Your task to perform on an android device: change the upload size in google photos Image 0: 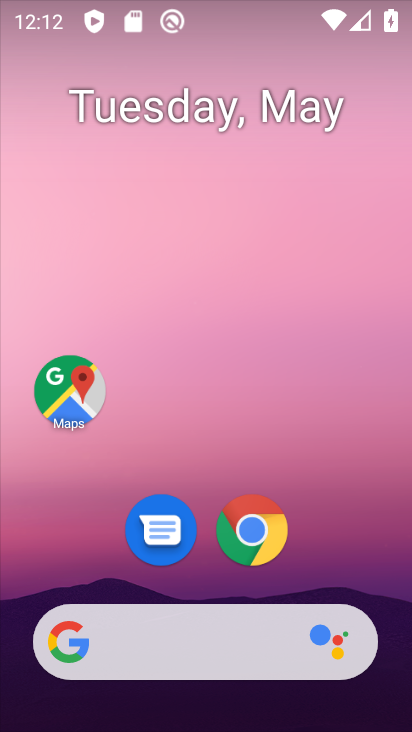
Step 0: drag from (374, 535) to (281, 95)
Your task to perform on an android device: change the upload size in google photos Image 1: 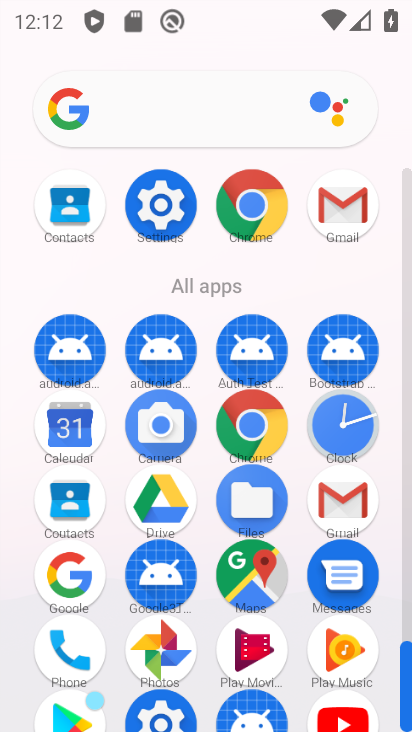
Step 1: drag from (11, 563) to (12, 211)
Your task to perform on an android device: change the upload size in google photos Image 2: 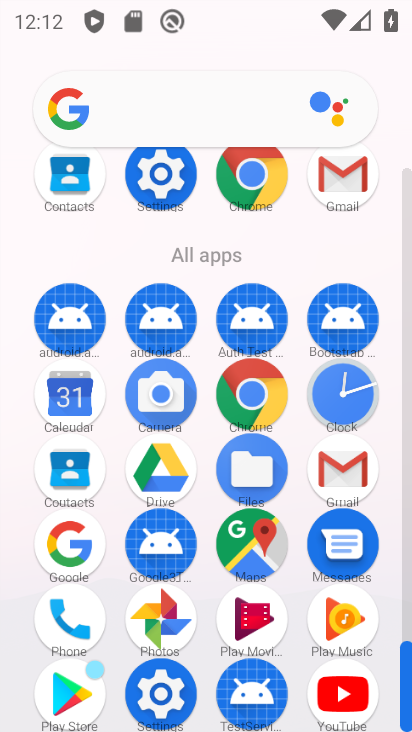
Step 2: click (162, 614)
Your task to perform on an android device: change the upload size in google photos Image 3: 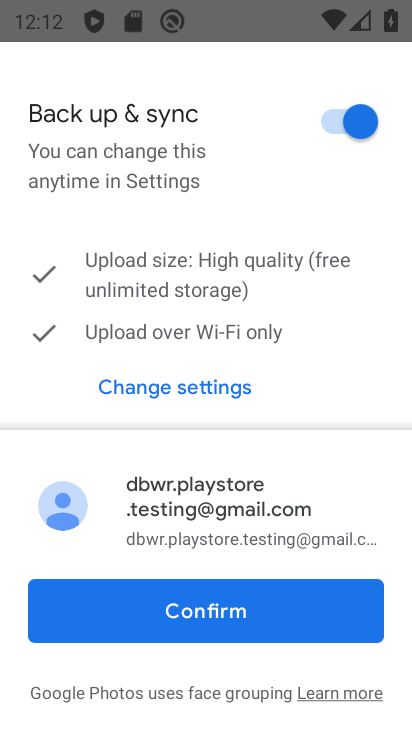
Step 3: click (214, 625)
Your task to perform on an android device: change the upload size in google photos Image 4: 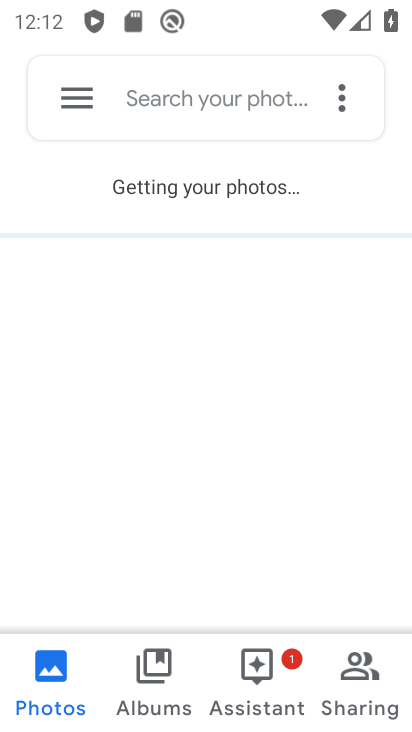
Step 4: click (76, 96)
Your task to perform on an android device: change the upload size in google photos Image 5: 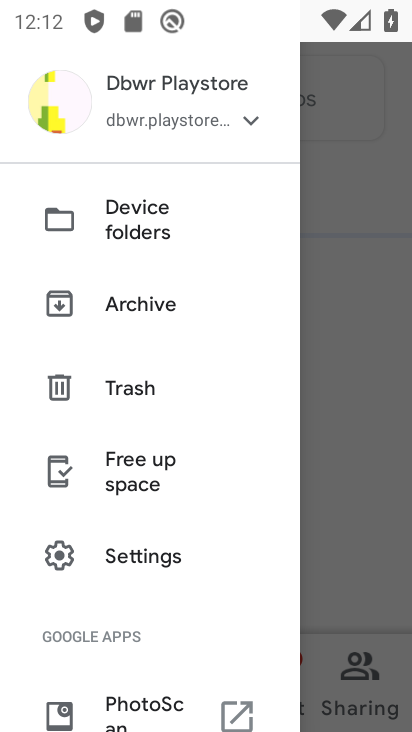
Step 5: click (155, 560)
Your task to perform on an android device: change the upload size in google photos Image 6: 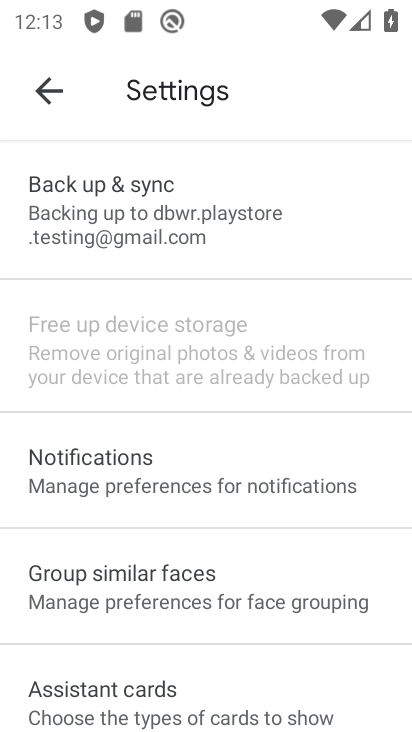
Step 6: drag from (250, 614) to (261, 157)
Your task to perform on an android device: change the upload size in google photos Image 7: 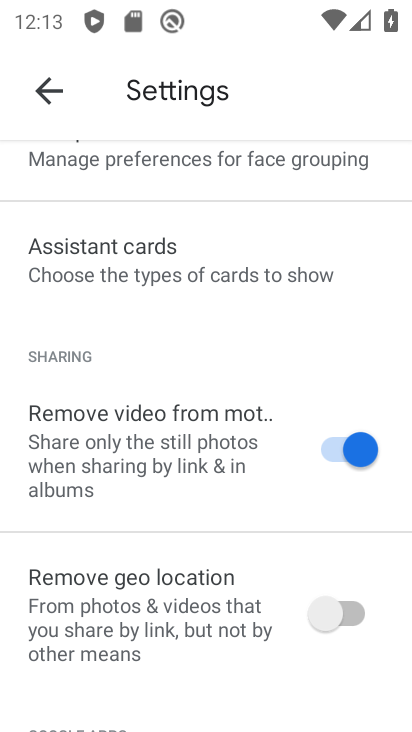
Step 7: drag from (231, 303) to (165, 665)
Your task to perform on an android device: change the upload size in google photos Image 8: 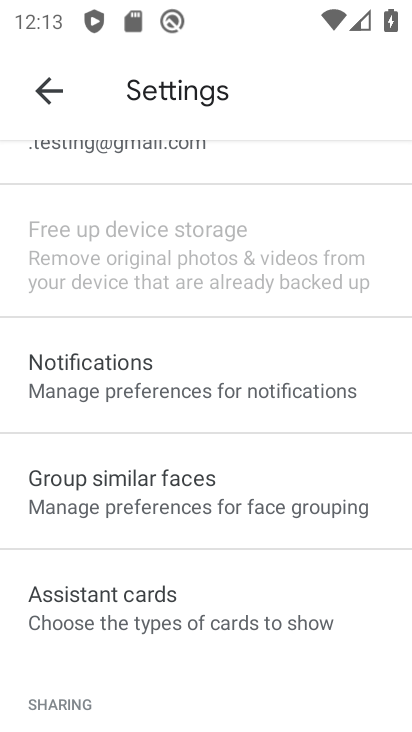
Step 8: drag from (189, 231) to (180, 620)
Your task to perform on an android device: change the upload size in google photos Image 9: 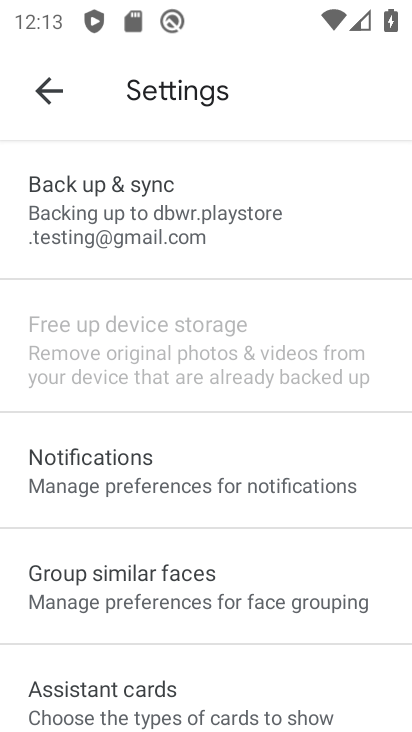
Step 9: click (186, 203)
Your task to perform on an android device: change the upload size in google photos Image 10: 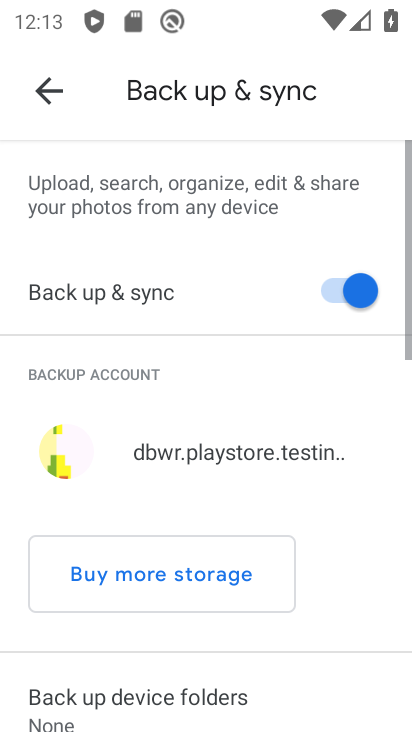
Step 10: drag from (298, 625) to (268, 165)
Your task to perform on an android device: change the upload size in google photos Image 11: 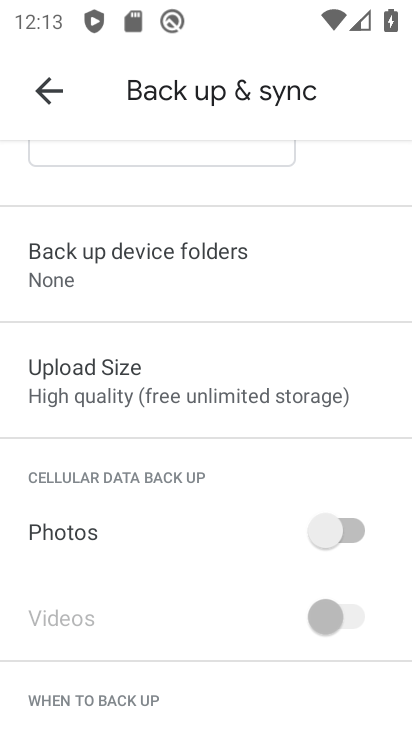
Step 11: drag from (179, 577) to (219, 354)
Your task to perform on an android device: change the upload size in google photos Image 12: 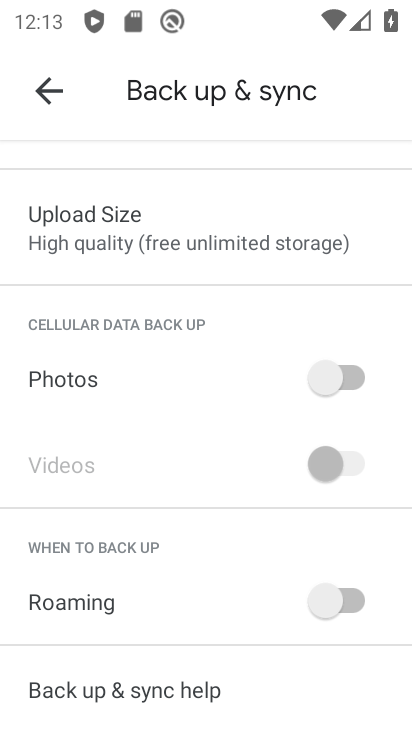
Step 12: click (197, 224)
Your task to perform on an android device: change the upload size in google photos Image 13: 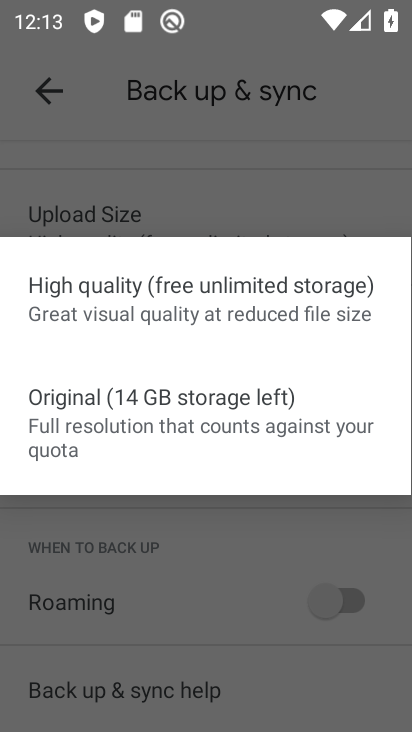
Step 13: click (180, 404)
Your task to perform on an android device: change the upload size in google photos Image 14: 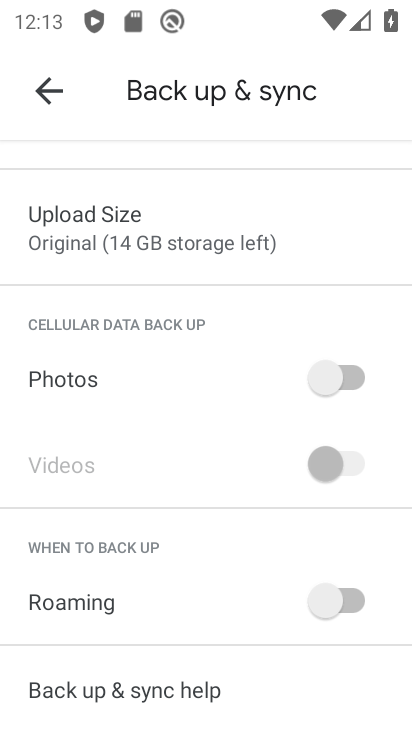
Step 14: task complete